Your task to perform on an android device: Open Android settings Image 0: 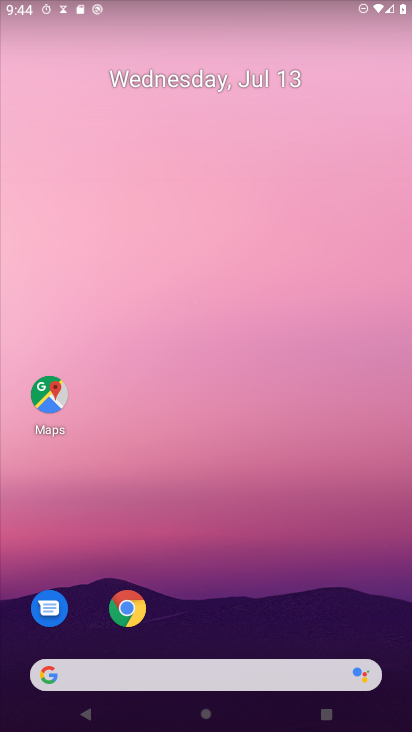
Step 0: drag from (274, 674) to (255, 361)
Your task to perform on an android device: Open Android settings Image 1: 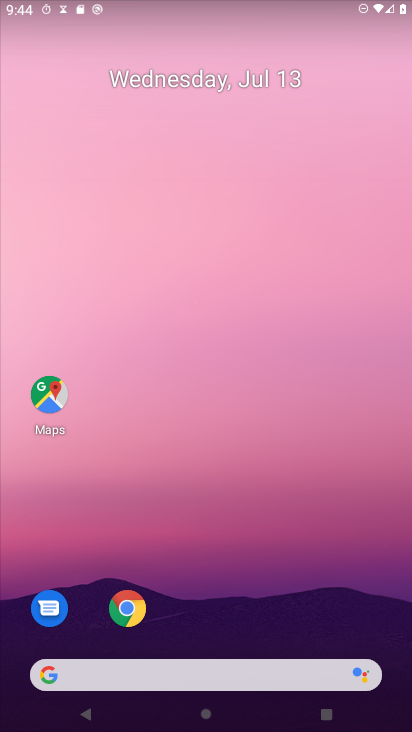
Step 1: drag from (231, 686) to (181, 357)
Your task to perform on an android device: Open Android settings Image 2: 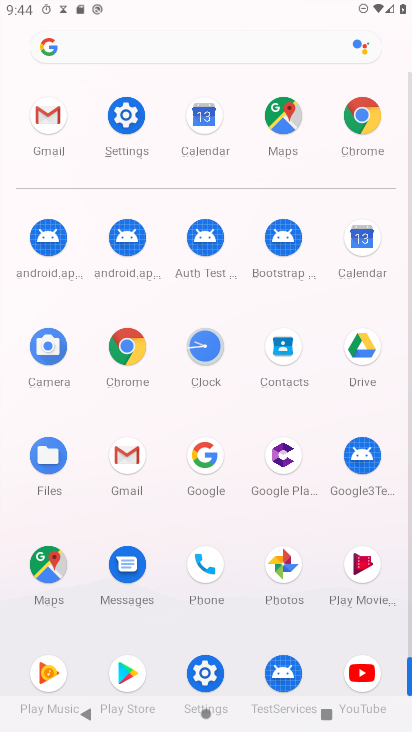
Step 2: click (124, 114)
Your task to perform on an android device: Open Android settings Image 3: 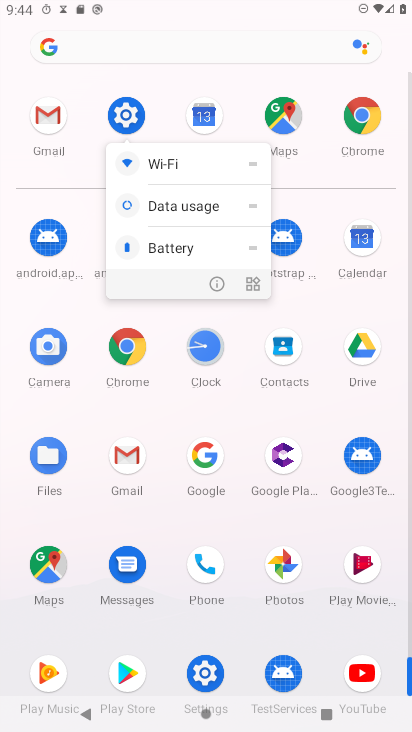
Step 3: click (135, 120)
Your task to perform on an android device: Open Android settings Image 4: 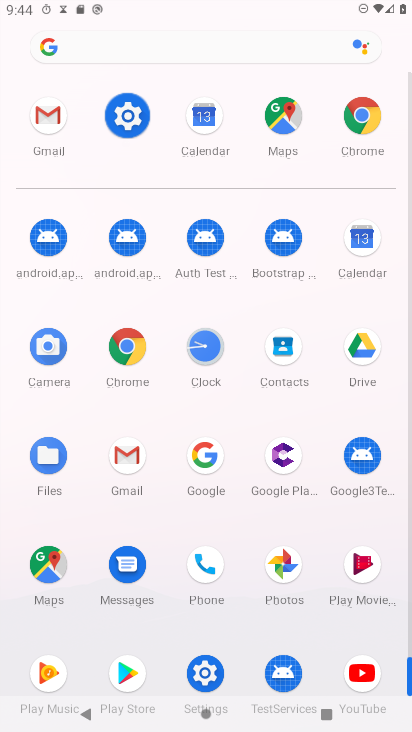
Step 4: click (136, 117)
Your task to perform on an android device: Open Android settings Image 5: 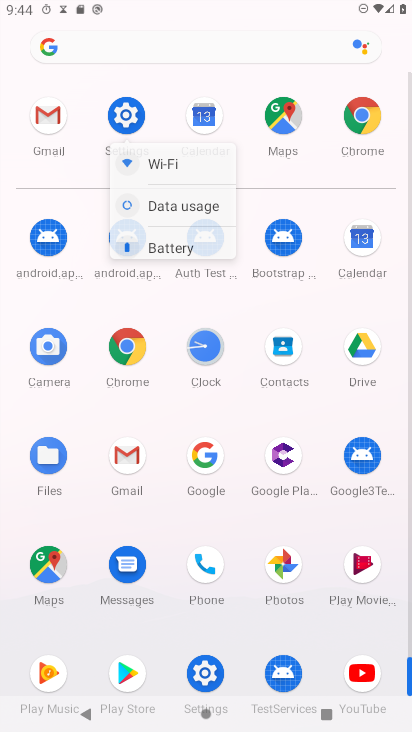
Step 5: click (136, 116)
Your task to perform on an android device: Open Android settings Image 6: 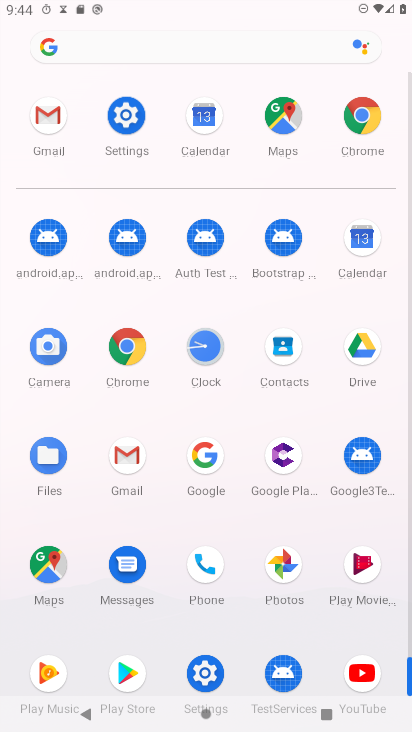
Step 6: click (136, 116)
Your task to perform on an android device: Open Android settings Image 7: 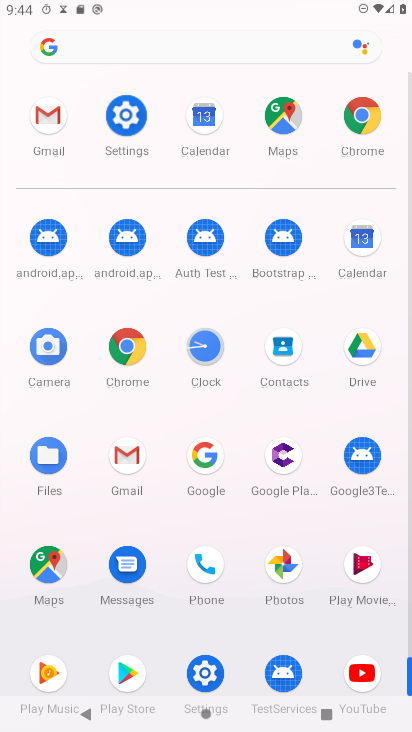
Step 7: click (136, 116)
Your task to perform on an android device: Open Android settings Image 8: 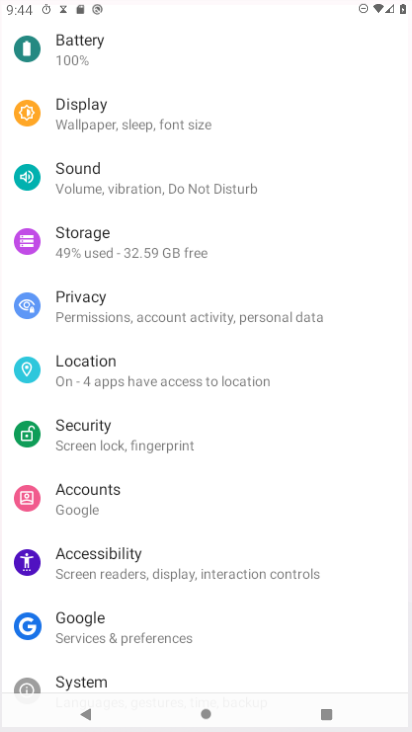
Step 8: click (136, 116)
Your task to perform on an android device: Open Android settings Image 9: 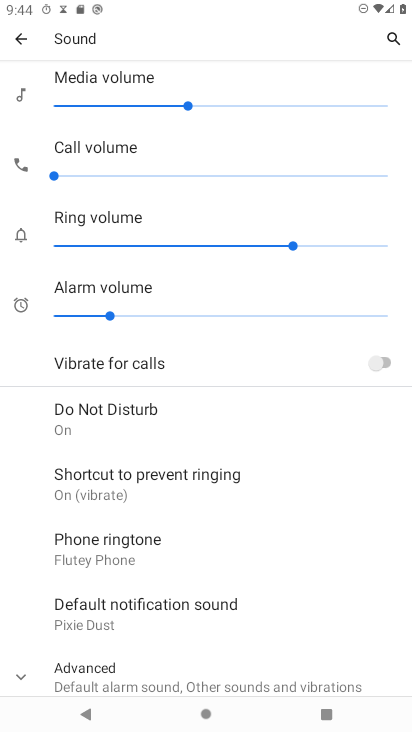
Step 9: click (14, 36)
Your task to perform on an android device: Open Android settings Image 10: 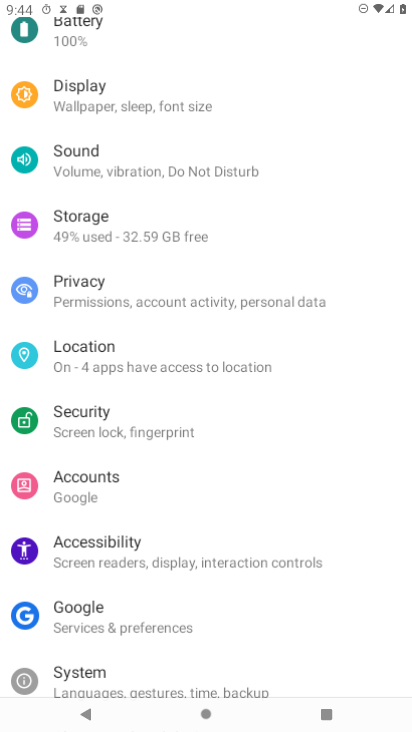
Step 10: click (21, 39)
Your task to perform on an android device: Open Android settings Image 11: 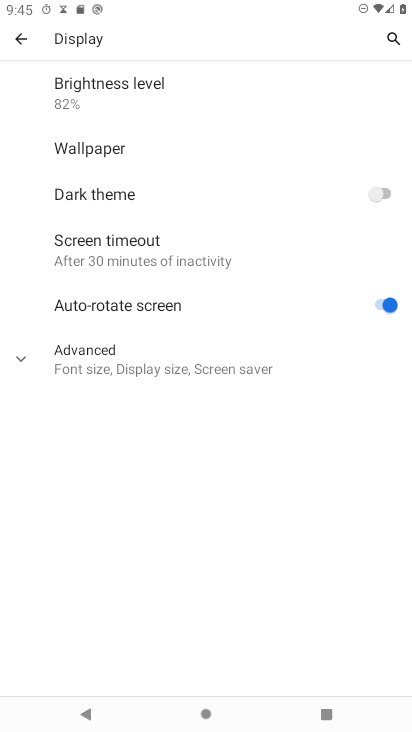
Step 11: click (47, 65)
Your task to perform on an android device: Open Android settings Image 12: 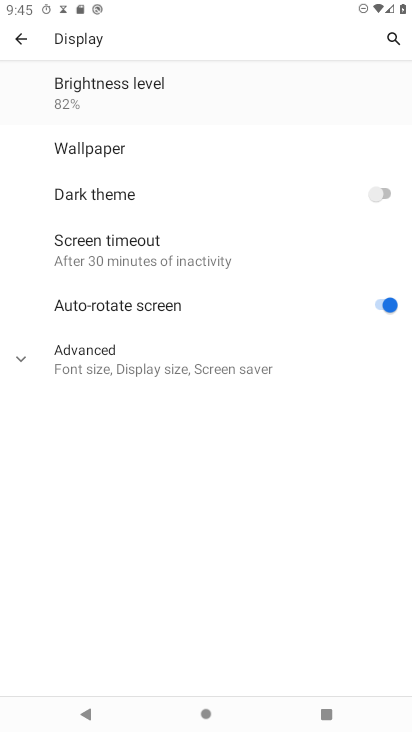
Step 12: click (26, 41)
Your task to perform on an android device: Open Android settings Image 13: 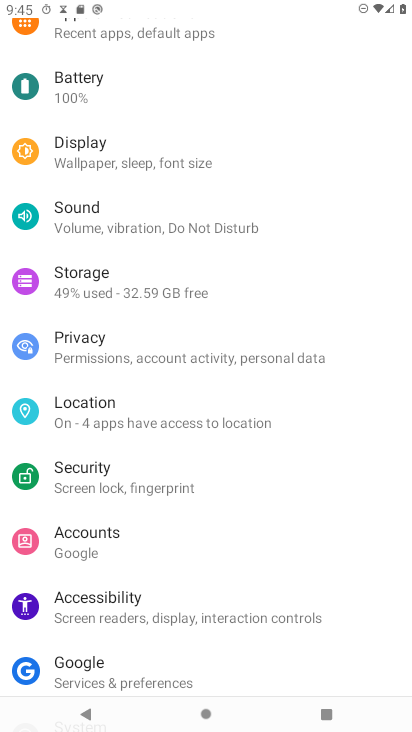
Step 13: drag from (211, 543) to (232, 222)
Your task to perform on an android device: Open Android settings Image 14: 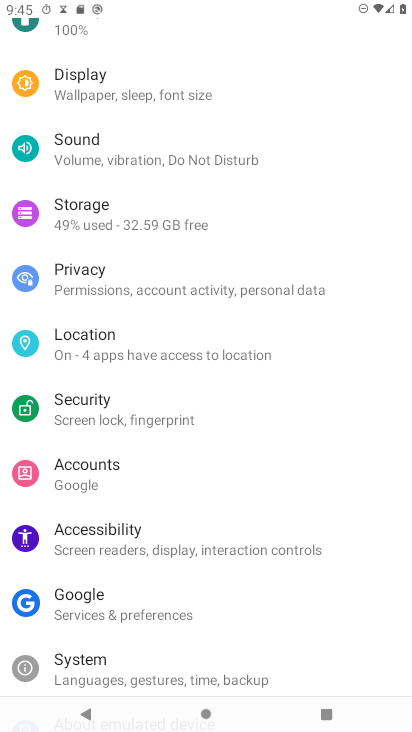
Step 14: drag from (250, 407) to (235, 307)
Your task to perform on an android device: Open Android settings Image 15: 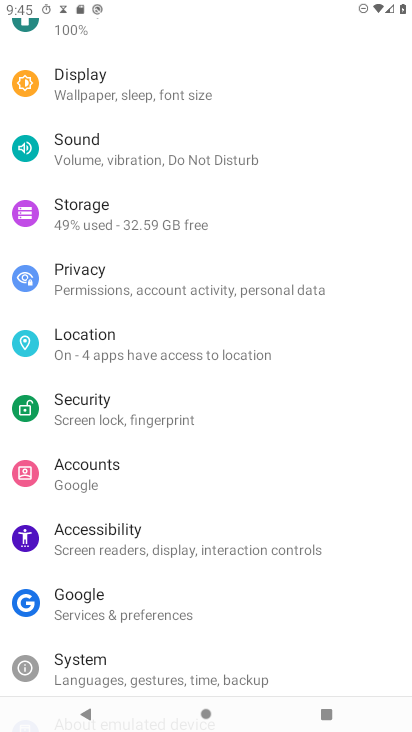
Step 15: click (176, 257)
Your task to perform on an android device: Open Android settings Image 16: 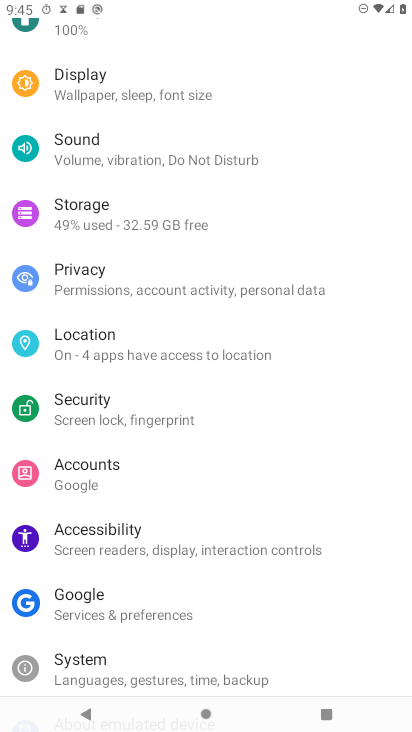
Step 16: drag from (175, 537) to (145, 373)
Your task to perform on an android device: Open Android settings Image 17: 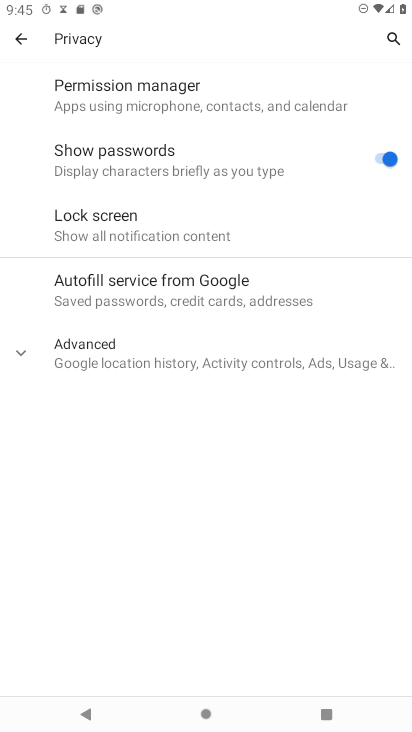
Step 17: click (21, 41)
Your task to perform on an android device: Open Android settings Image 18: 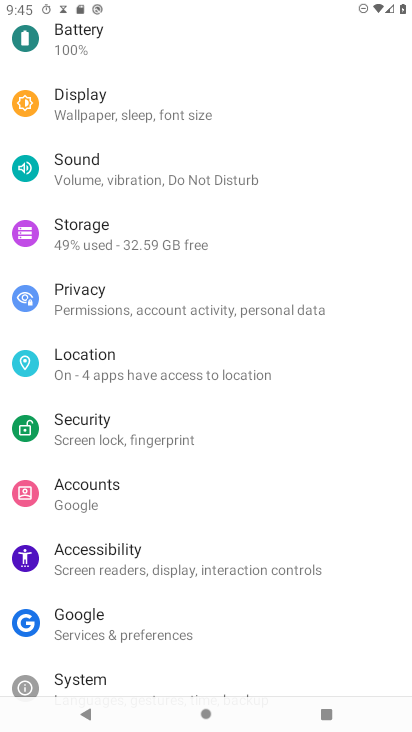
Step 18: drag from (147, 660) to (152, 266)
Your task to perform on an android device: Open Android settings Image 19: 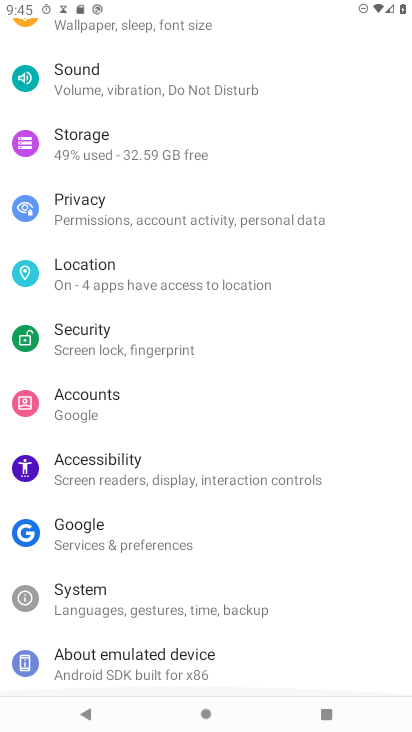
Step 19: drag from (210, 578) to (187, 304)
Your task to perform on an android device: Open Android settings Image 20: 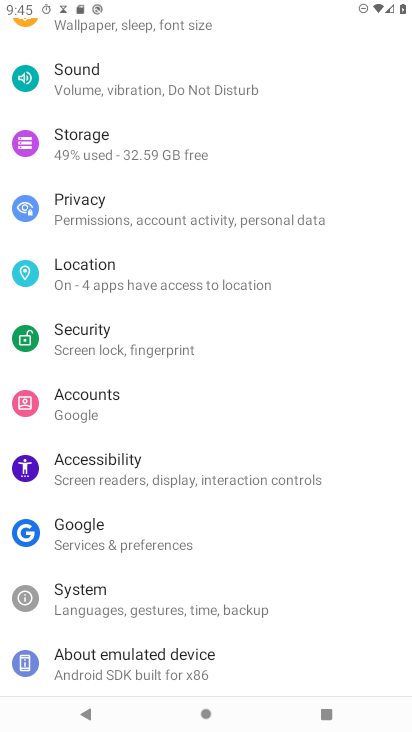
Step 20: click (107, 659)
Your task to perform on an android device: Open Android settings Image 21: 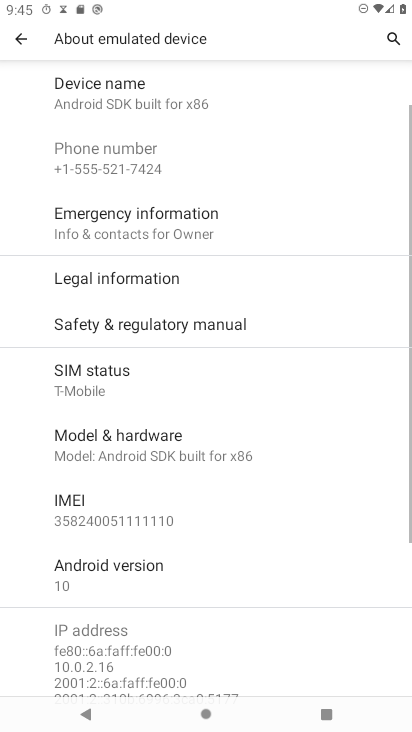
Step 21: task complete